Your task to perform on an android device: add a label to a message in the gmail app Image 0: 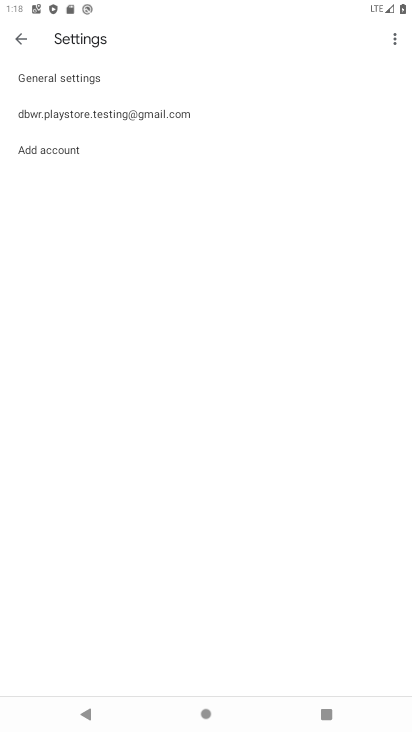
Step 0: press home button
Your task to perform on an android device: add a label to a message in the gmail app Image 1: 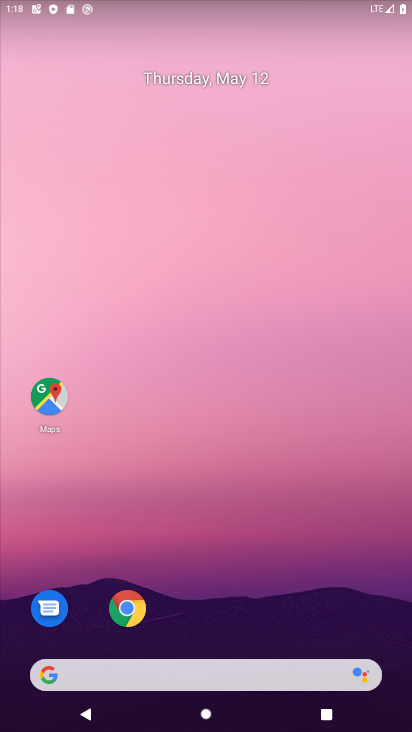
Step 1: drag from (316, 620) to (370, 42)
Your task to perform on an android device: add a label to a message in the gmail app Image 2: 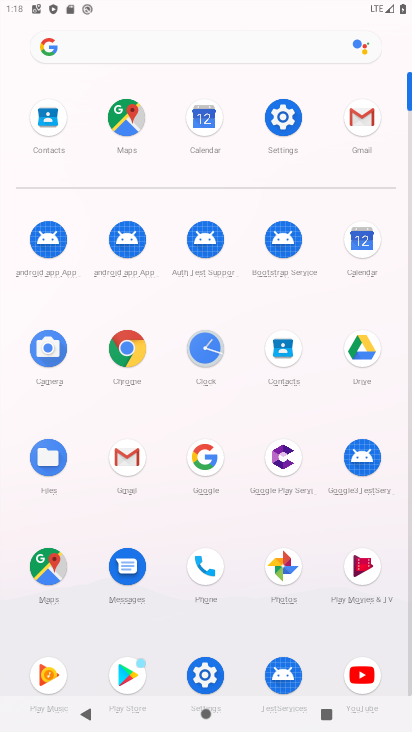
Step 2: click (362, 117)
Your task to perform on an android device: add a label to a message in the gmail app Image 3: 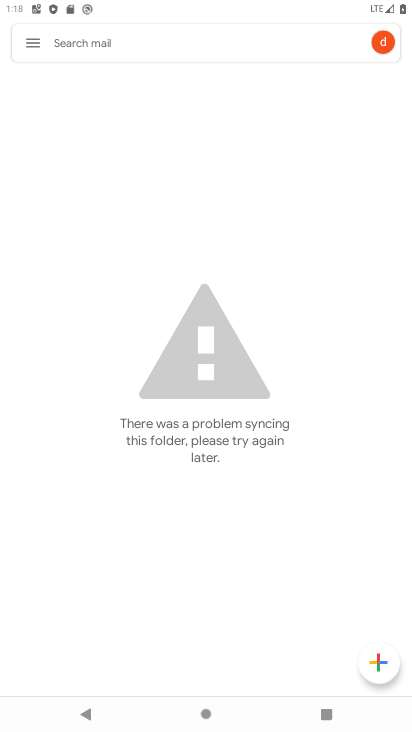
Step 3: drag from (220, 321) to (220, 490)
Your task to perform on an android device: add a label to a message in the gmail app Image 4: 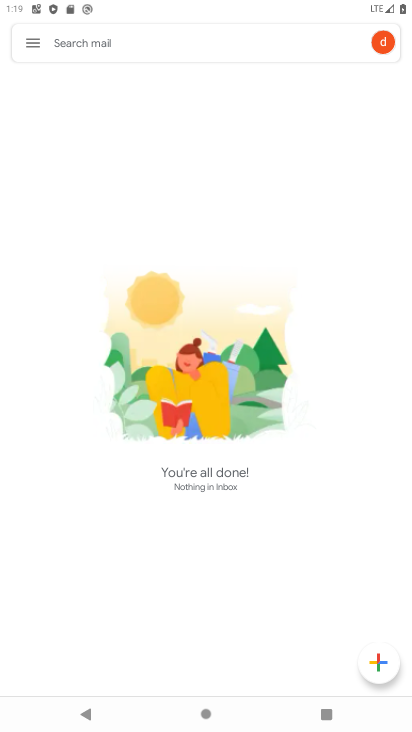
Step 4: click (33, 42)
Your task to perform on an android device: add a label to a message in the gmail app Image 5: 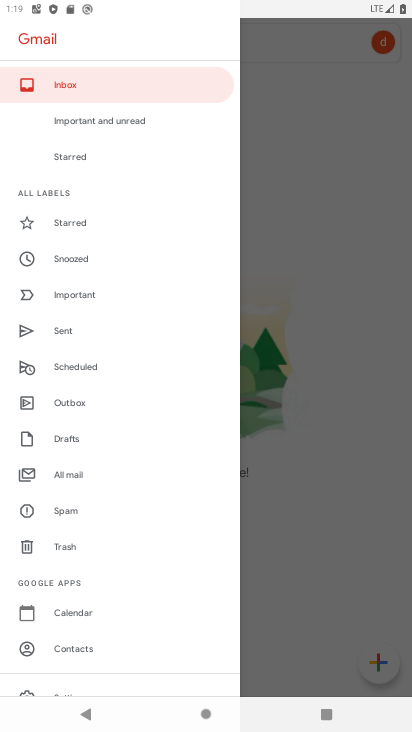
Step 5: click (72, 480)
Your task to perform on an android device: add a label to a message in the gmail app Image 6: 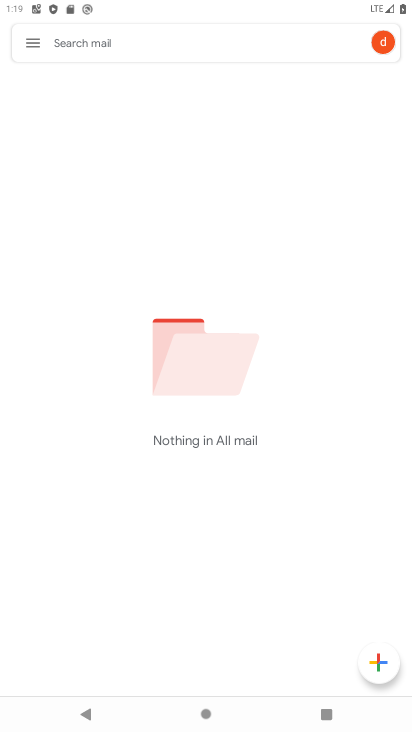
Step 6: task complete